Your task to perform on an android device: Show me popular videos on Youtube Image 0: 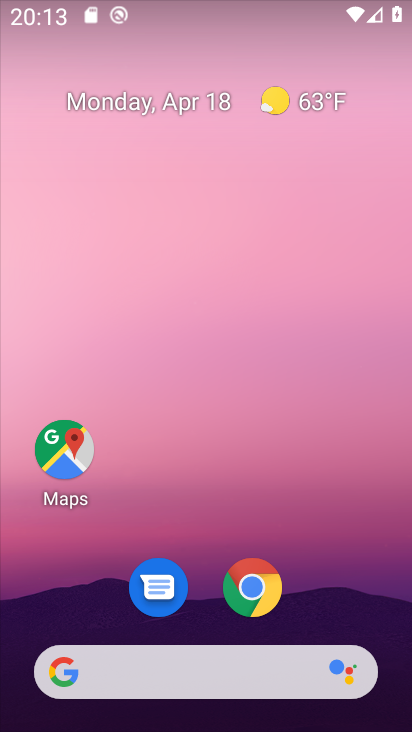
Step 0: drag from (342, 585) to (324, 455)
Your task to perform on an android device: Show me popular videos on Youtube Image 1: 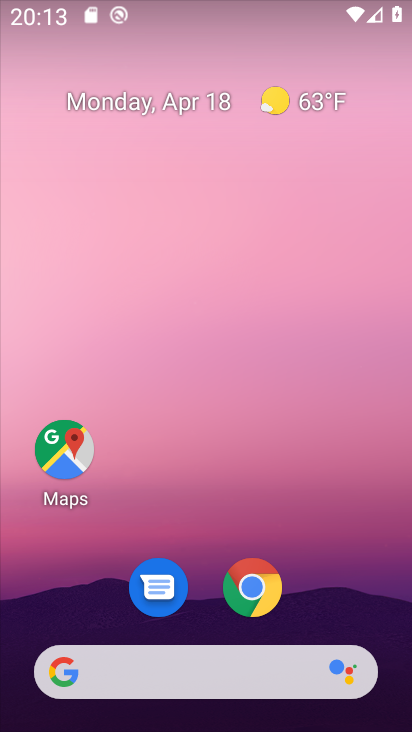
Step 1: drag from (334, 568) to (291, 98)
Your task to perform on an android device: Show me popular videos on Youtube Image 2: 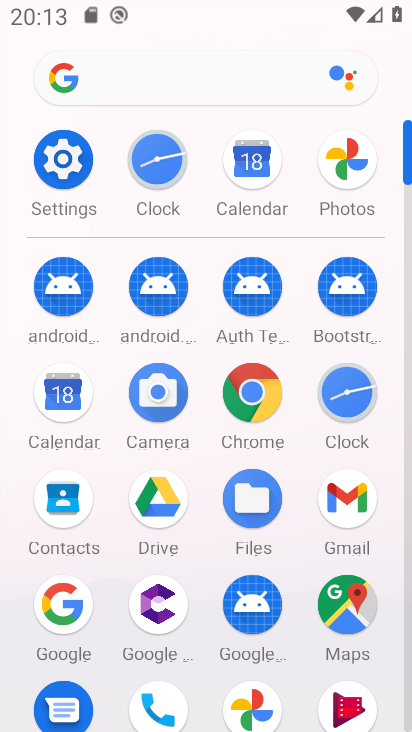
Step 2: click (405, 608)
Your task to perform on an android device: Show me popular videos on Youtube Image 3: 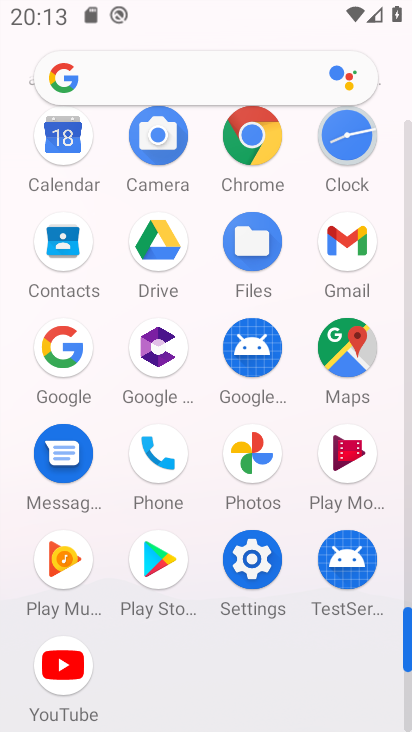
Step 3: click (53, 684)
Your task to perform on an android device: Show me popular videos on Youtube Image 4: 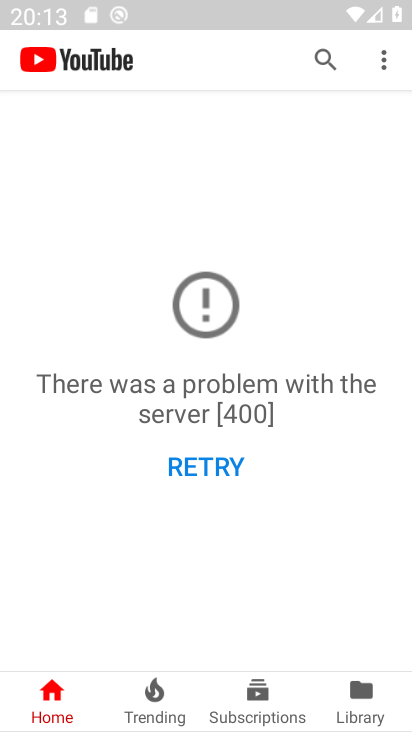
Step 4: click (217, 472)
Your task to perform on an android device: Show me popular videos on Youtube Image 5: 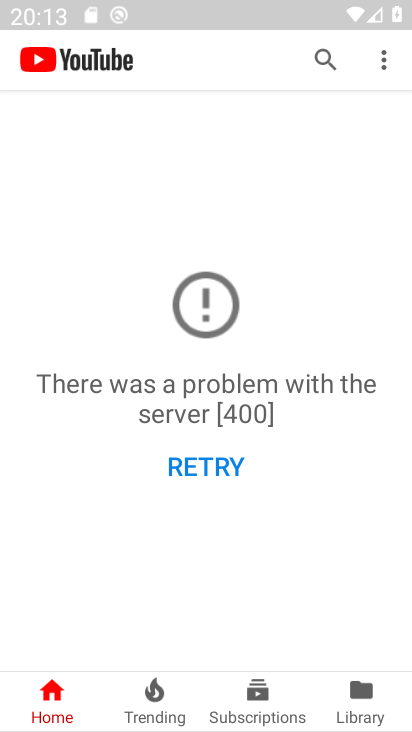
Step 5: click (217, 472)
Your task to perform on an android device: Show me popular videos on Youtube Image 6: 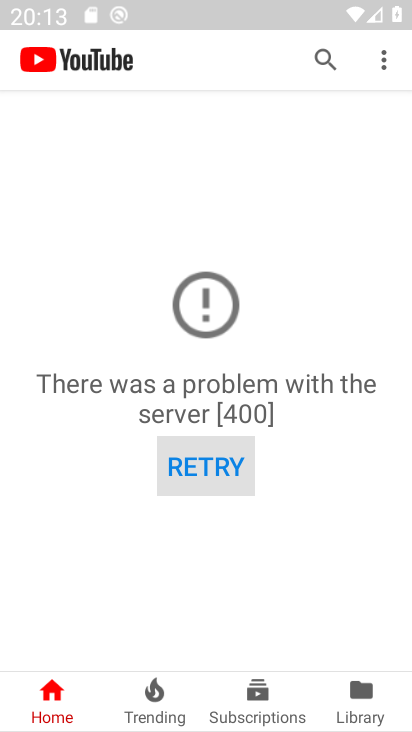
Step 6: click (217, 472)
Your task to perform on an android device: Show me popular videos on Youtube Image 7: 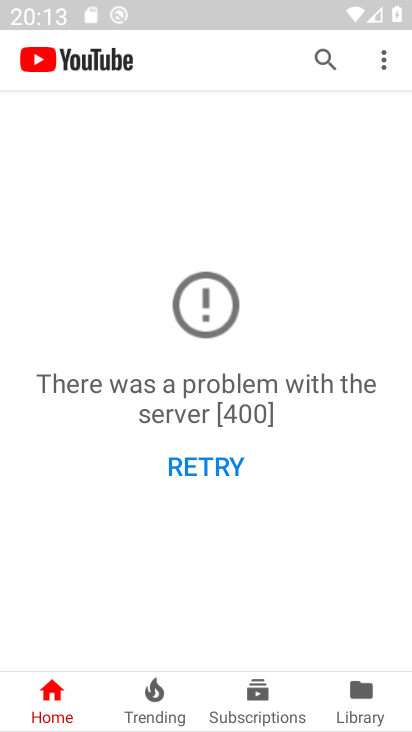
Step 7: task complete